Your task to perform on an android device: When is my next meeting? Image 0: 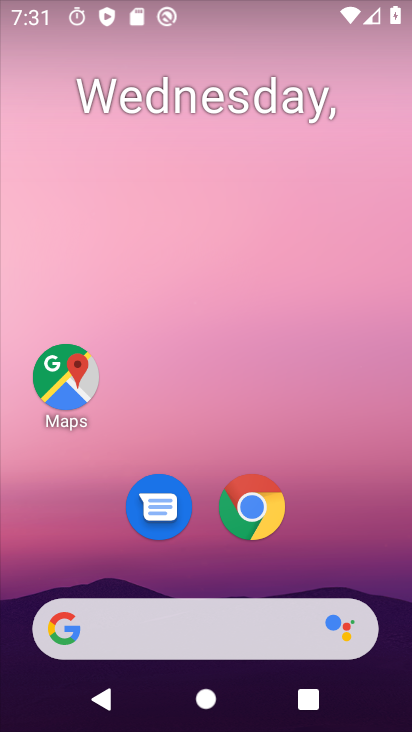
Step 0: click (308, 225)
Your task to perform on an android device: When is my next meeting? Image 1: 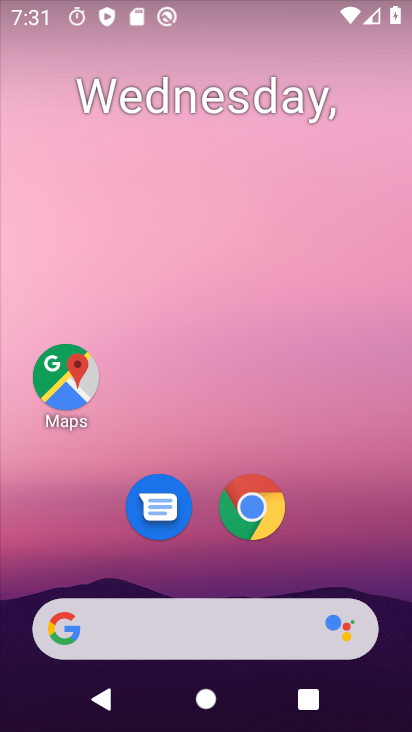
Step 1: drag from (287, 579) to (309, 161)
Your task to perform on an android device: When is my next meeting? Image 2: 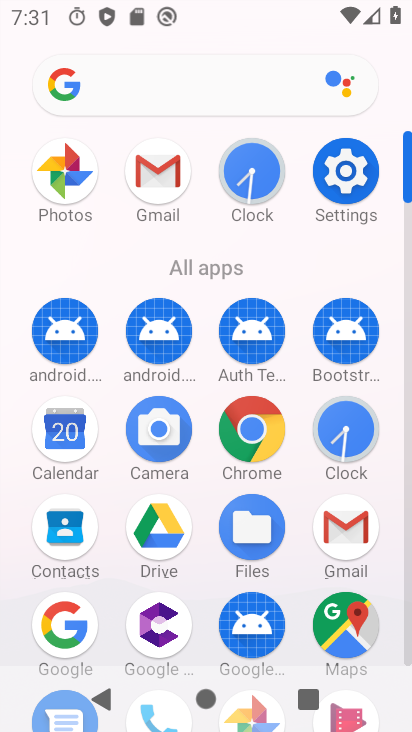
Step 2: click (67, 425)
Your task to perform on an android device: When is my next meeting? Image 3: 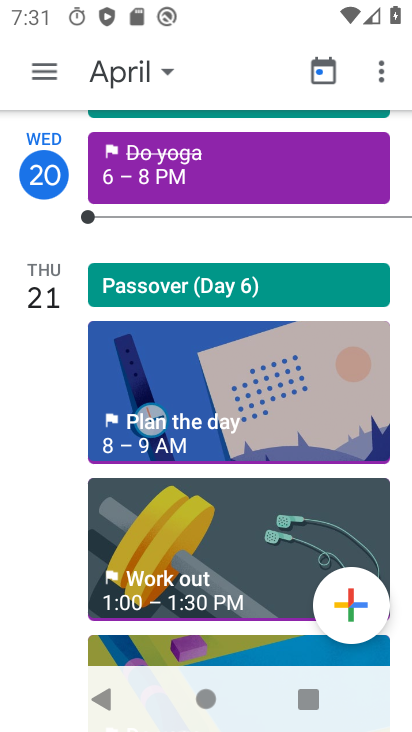
Step 3: click (41, 88)
Your task to perform on an android device: When is my next meeting? Image 4: 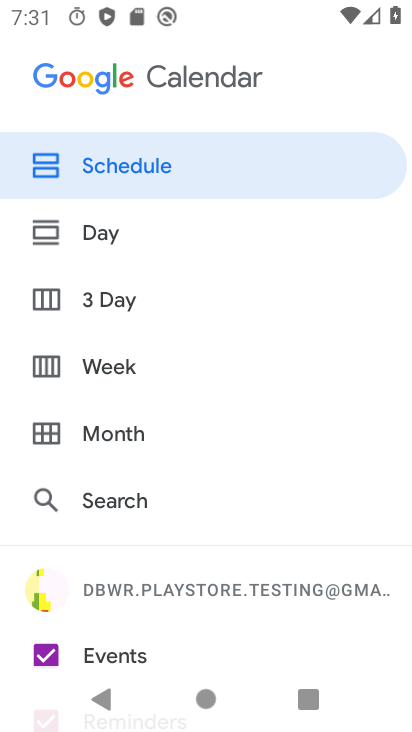
Step 4: click (118, 178)
Your task to perform on an android device: When is my next meeting? Image 5: 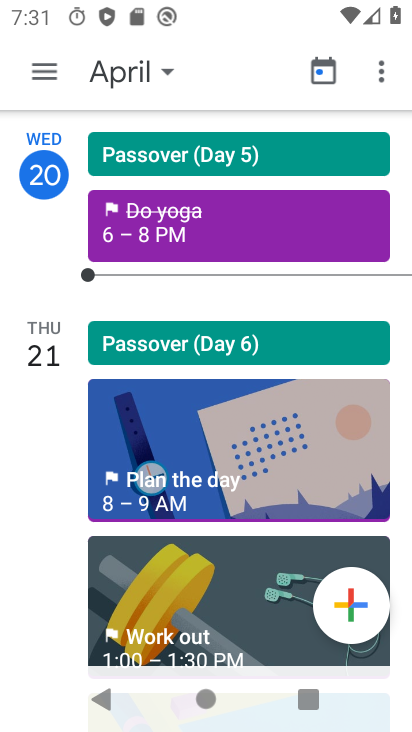
Step 5: task complete